Your task to perform on an android device: check google app version Image 0: 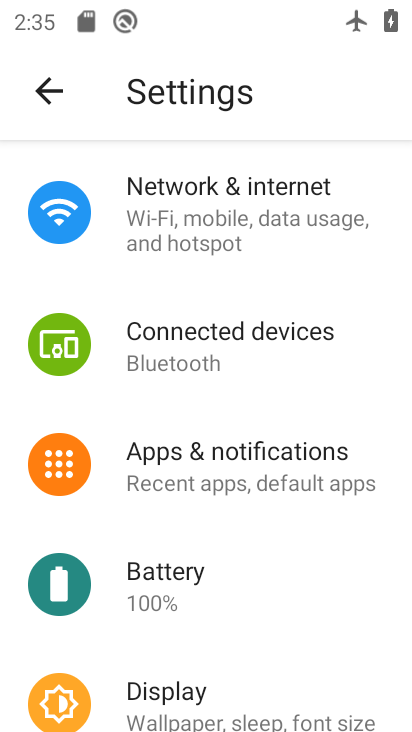
Step 0: press back button
Your task to perform on an android device: check google app version Image 1: 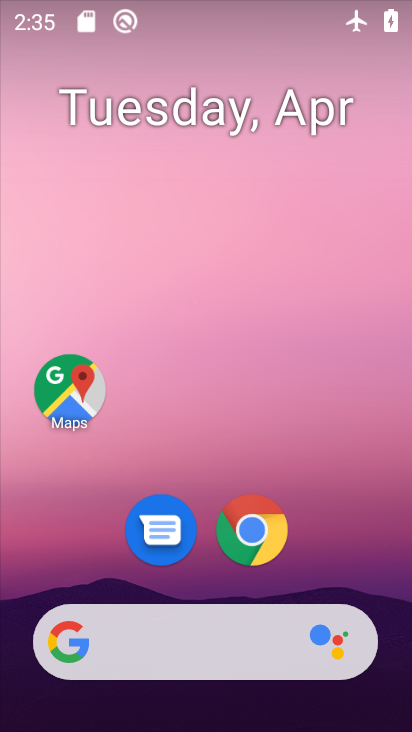
Step 1: drag from (209, 663) to (209, 115)
Your task to perform on an android device: check google app version Image 2: 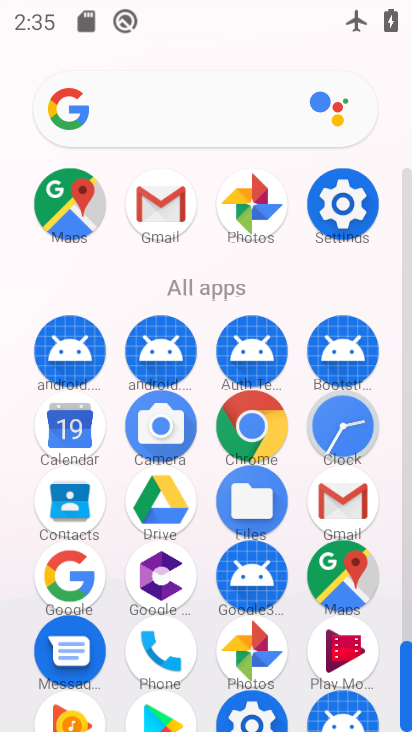
Step 2: click (63, 575)
Your task to perform on an android device: check google app version Image 3: 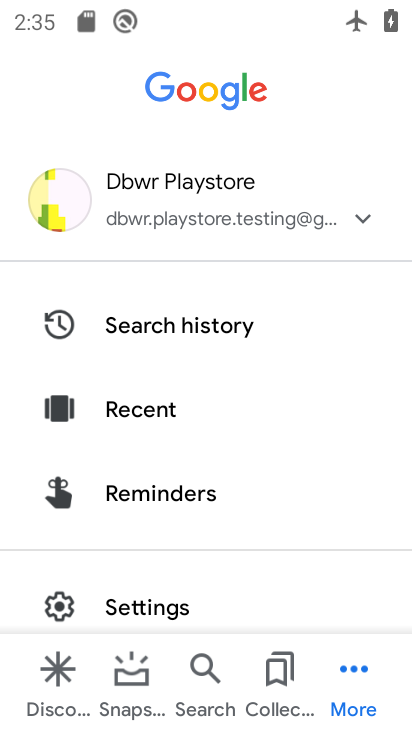
Step 3: click (161, 601)
Your task to perform on an android device: check google app version Image 4: 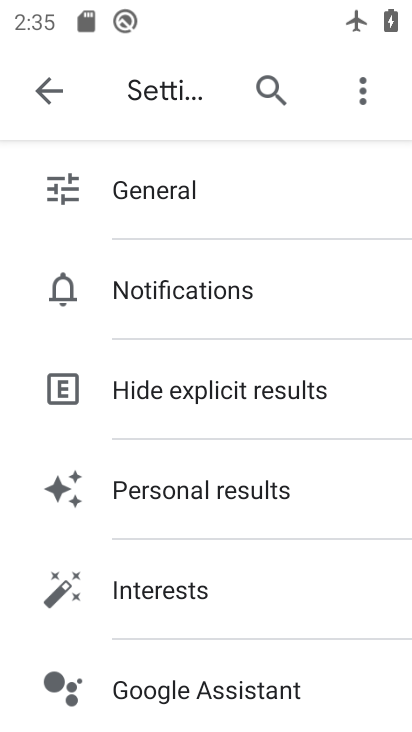
Step 4: drag from (159, 656) to (171, 107)
Your task to perform on an android device: check google app version Image 5: 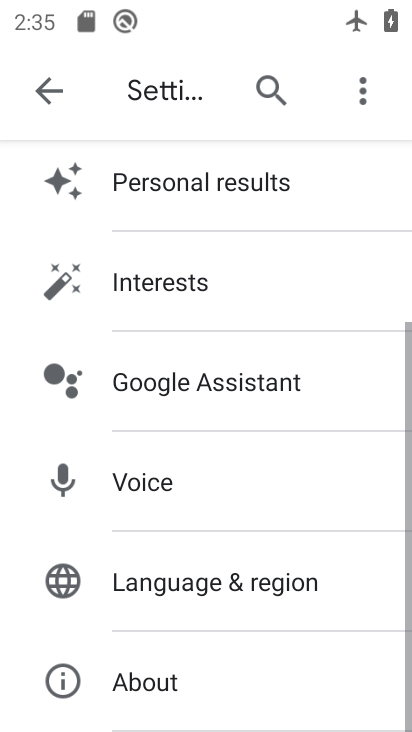
Step 5: drag from (205, 668) to (213, 211)
Your task to perform on an android device: check google app version Image 6: 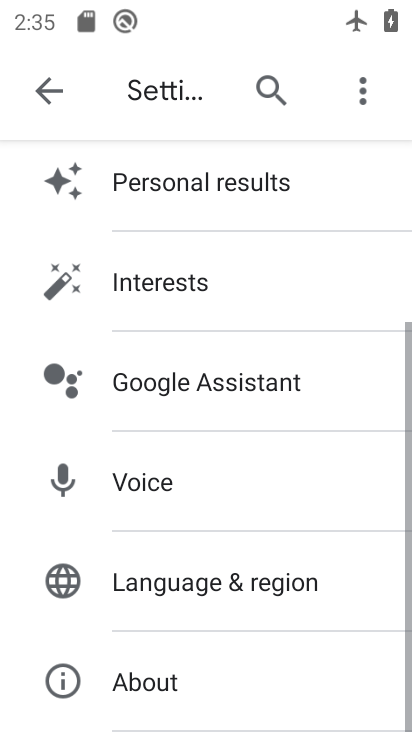
Step 6: click (142, 676)
Your task to perform on an android device: check google app version Image 7: 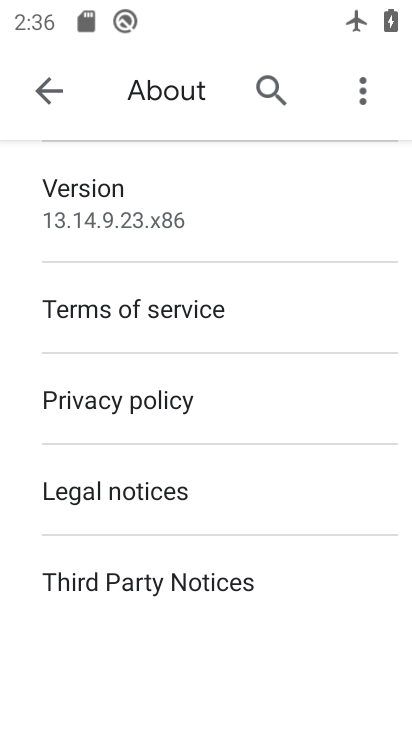
Step 7: task complete